Your task to perform on an android device: Open Google Maps and go to "Timeline" Image 0: 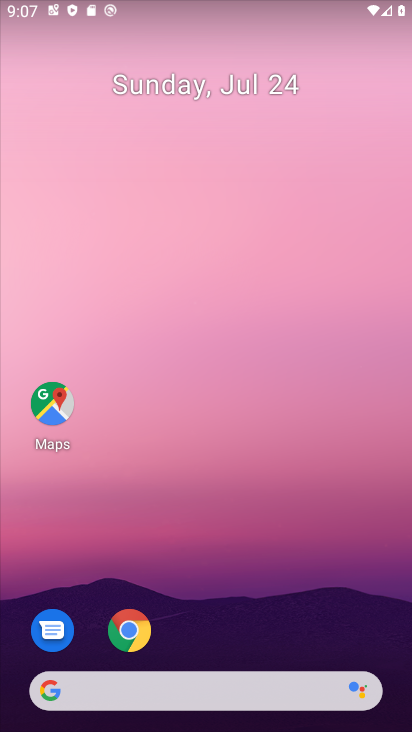
Step 0: click (68, 416)
Your task to perform on an android device: Open Google Maps and go to "Timeline" Image 1: 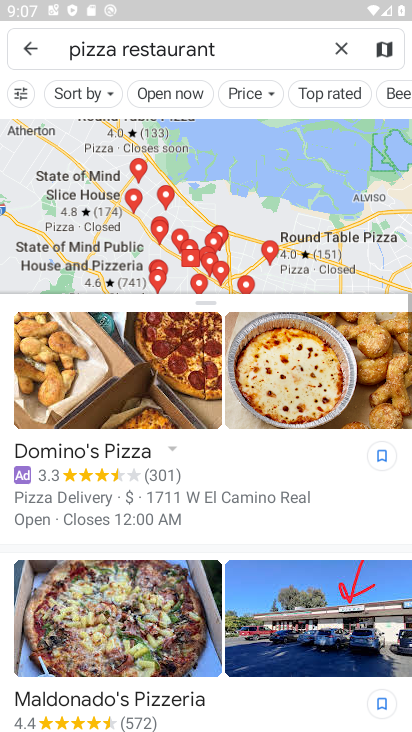
Step 1: click (37, 49)
Your task to perform on an android device: Open Google Maps and go to "Timeline" Image 2: 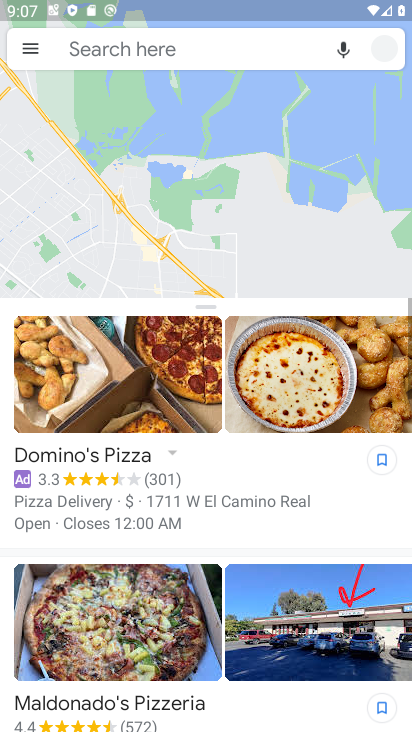
Step 2: click (37, 49)
Your task to perform on an android device: Open Google Maps and go to "Timeline" Image 3: 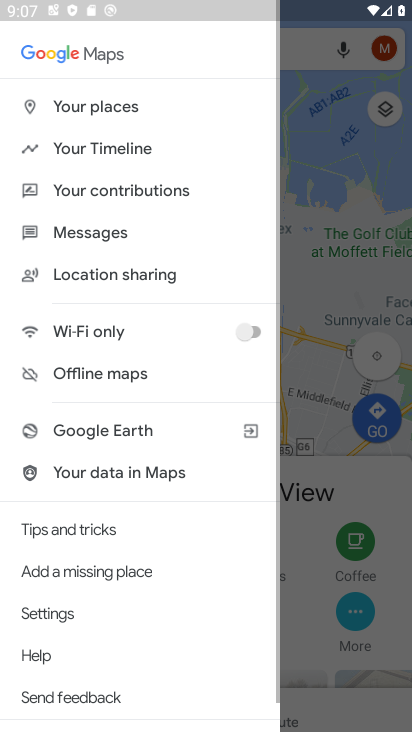
Step 3: click (35, 53)
Your task to perform on an android device: Open Google Maps and go to "Timeline" Image 4: 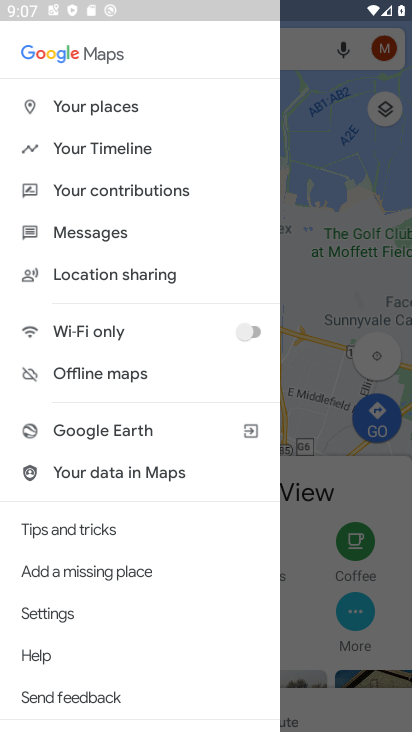
Step 4: click (129, 141)
Your task to perform on an android device: Open Google Maps and go to "Timeline" Image 5: 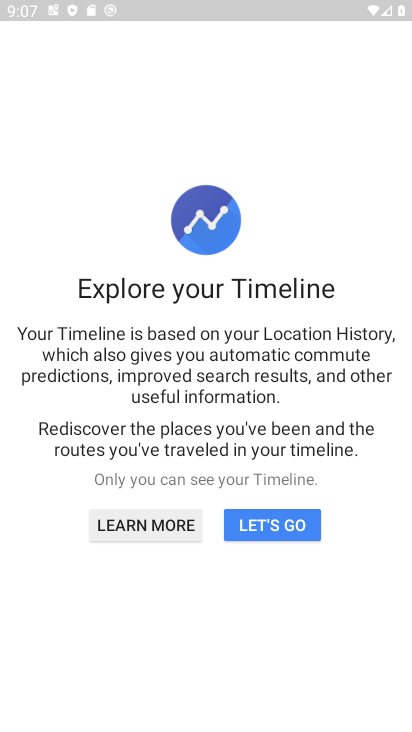
Step 5: click (292, 521)
Your task to perform on an android device: Open Google Maps and go to "Timeline" Image 6: 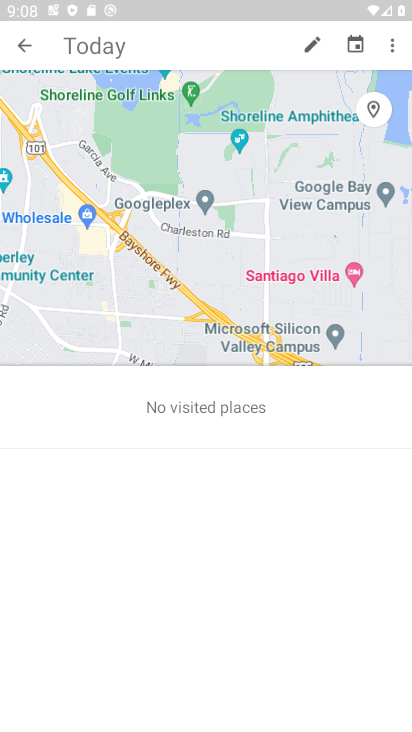
Step 6: click (16, 56)
Your task to perform on an android device: Open Google Maps and go to "Timeline" Image 7: 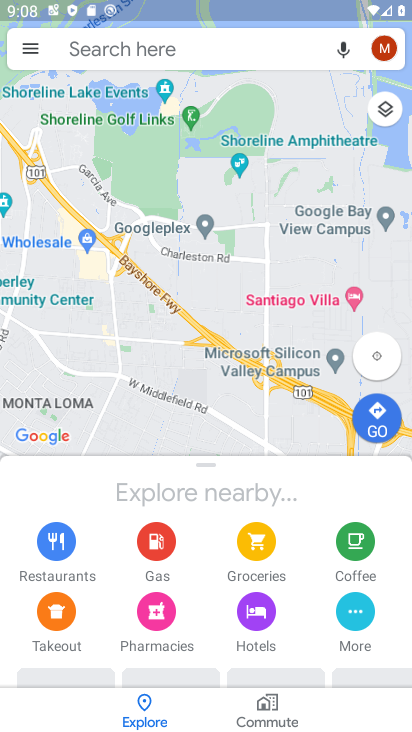
Step 7: click (26, 47)
Your task to perform on an android device: Open Google Maps and go to "Timeline" Image 8: 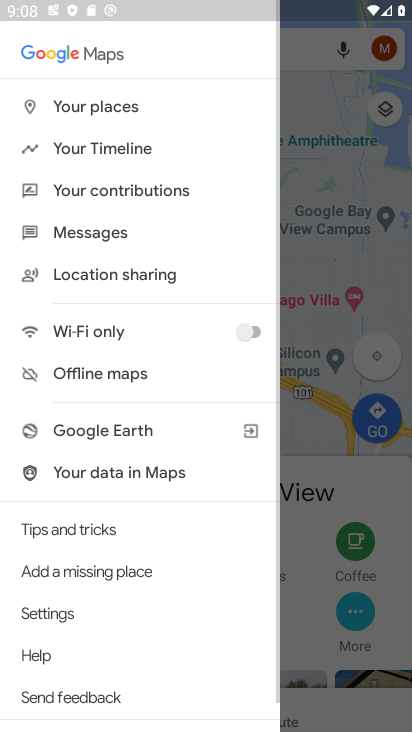
Step 8: click (130, 151)
Your task to perform on an android device: Open Google Maps and go to "Timeline" Image 9: 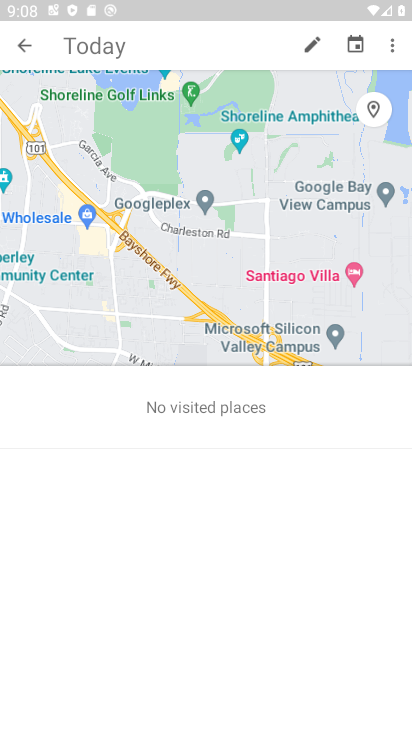
Step 9: task complete